Your task to perform on an android device: turn on wifi Image 0: 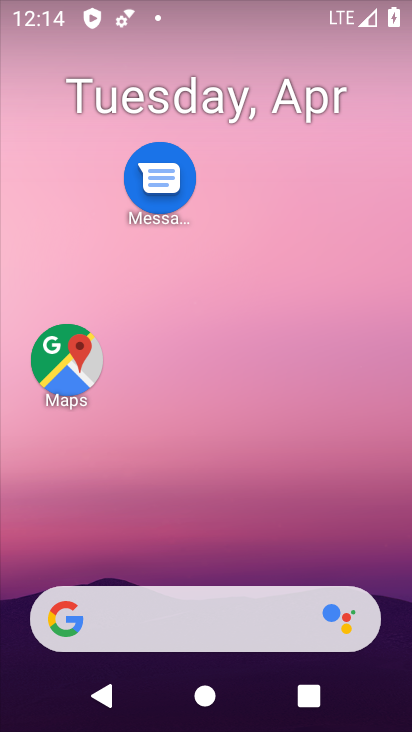
Step 0: drag from (207, 719) to (168, 55)
Your task to perform on an android device: turn on wifi Image 1: 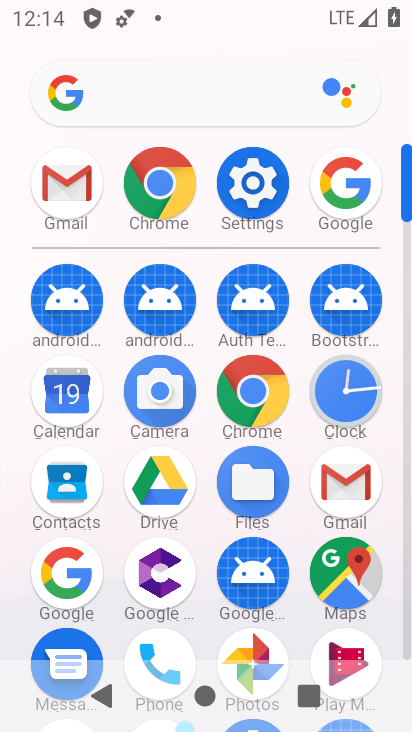
Step 1: click (259, 175)
Your task to perform on an android device: turn on wifi Image 2: 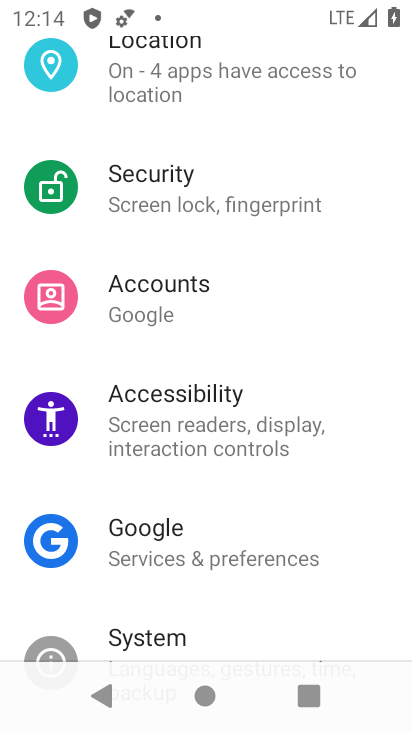
Step 2: drag from (212, 283) to (217, 495)
Your task to perform on an android device: turn on wifi Image 3: 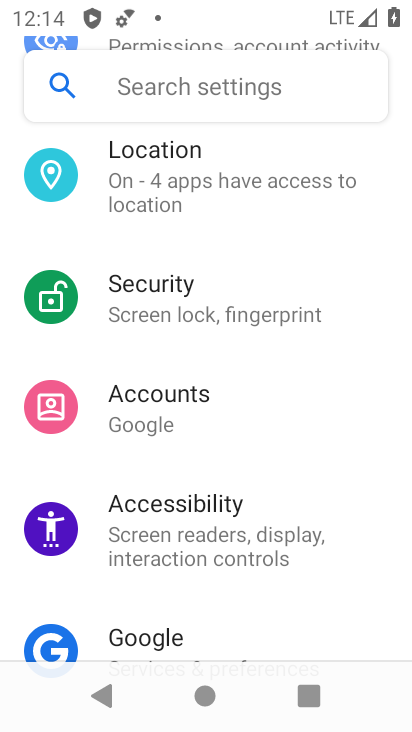
Step 3: drag from (218, 150) to (232, 564)
Your task to perform on an android device: turn on wifi Image 4: 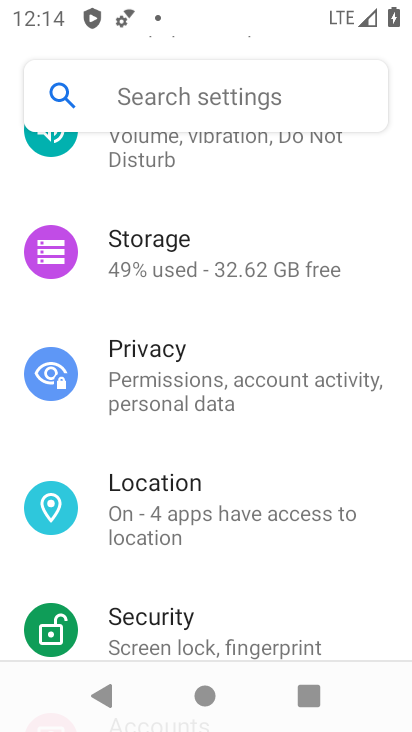
Step 4: drag from (232, 206) to (246, 572)
Your task to perform on an android device: turn on wifi Image 5: 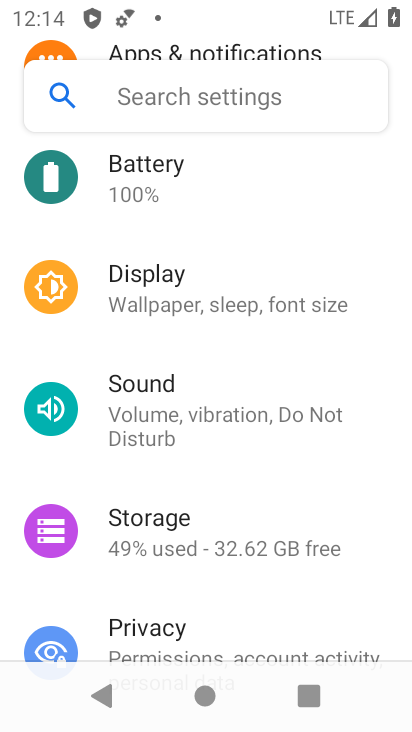
Step 5: drag from (228, 250) to (239, 581)
Your task to perform on an android device: turn on wifi Image 6: 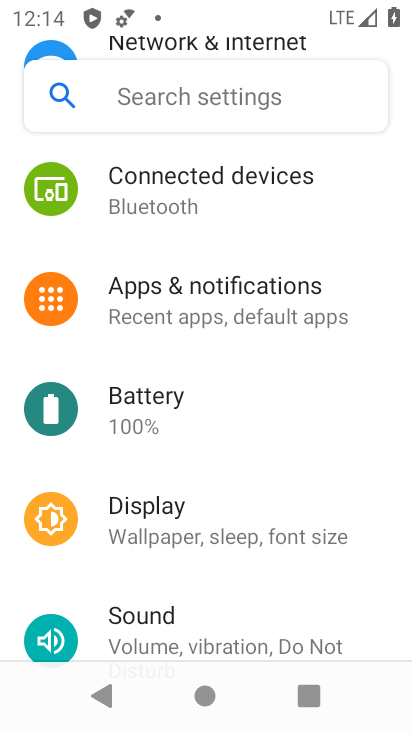
Step 6: drag from (212, 239) to (207, 607)
Your task to perform on an android device: turn on wifi Image 7: 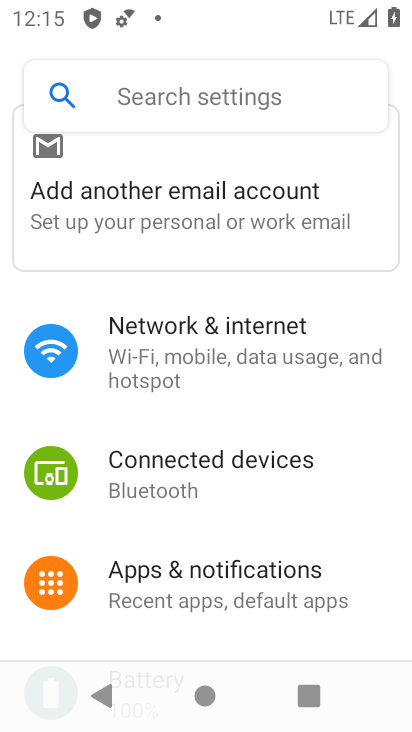
Step 7: click (175, 349)
Your task to perform on an android device: turn on wifi Image 8: 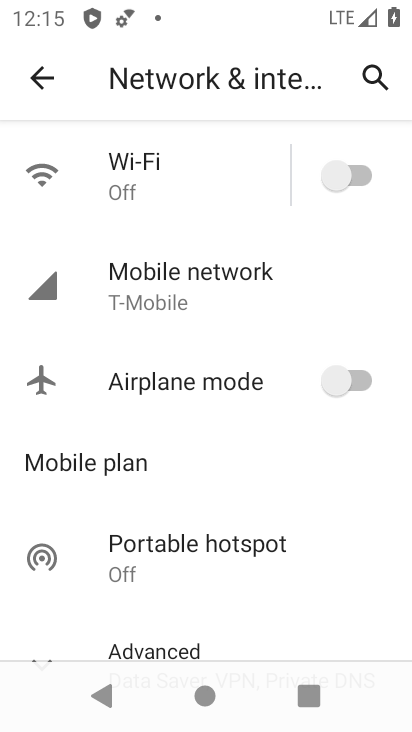
Step 8: click (357, 175)
Your task to perform on an android device: turn on wifi Image 9: 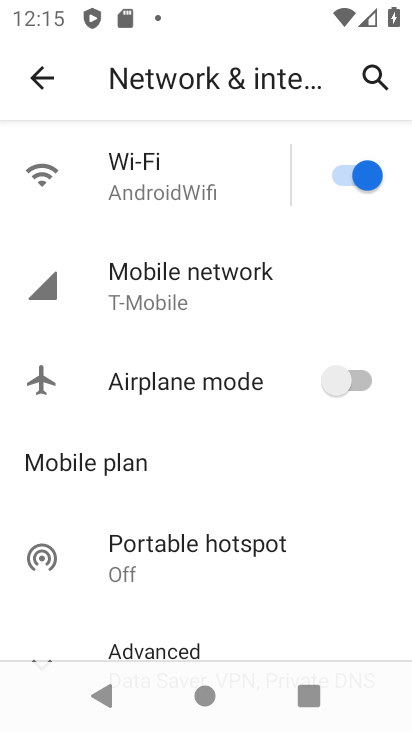
Step 9: task complete